Your task to perform on an android device: Go to settings Image 0: 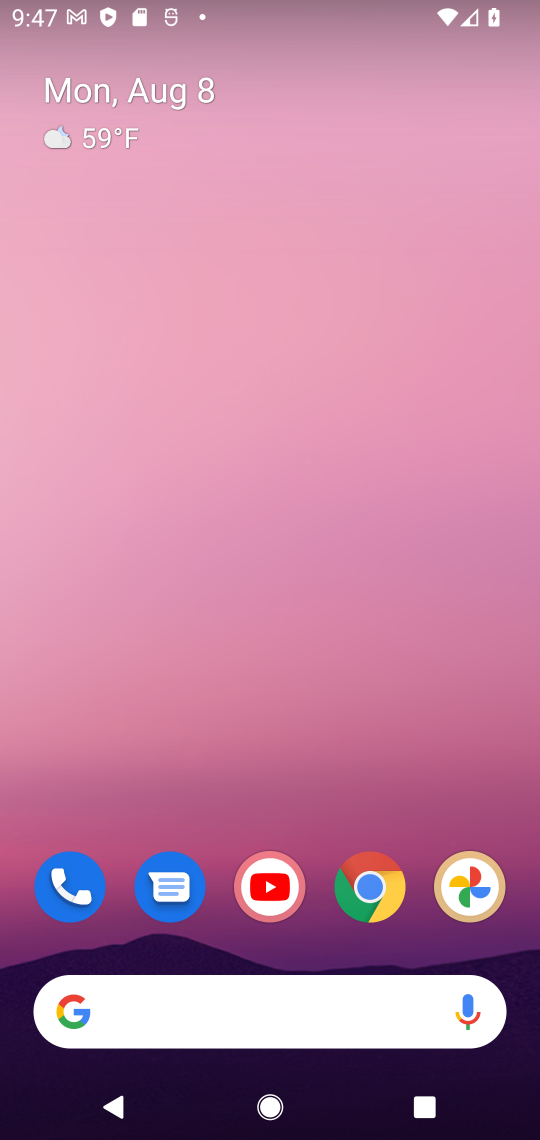
Step 0: drag from (386, 820) to (372, 61)
Your task to perform on an android device: Go to settings Image 1: 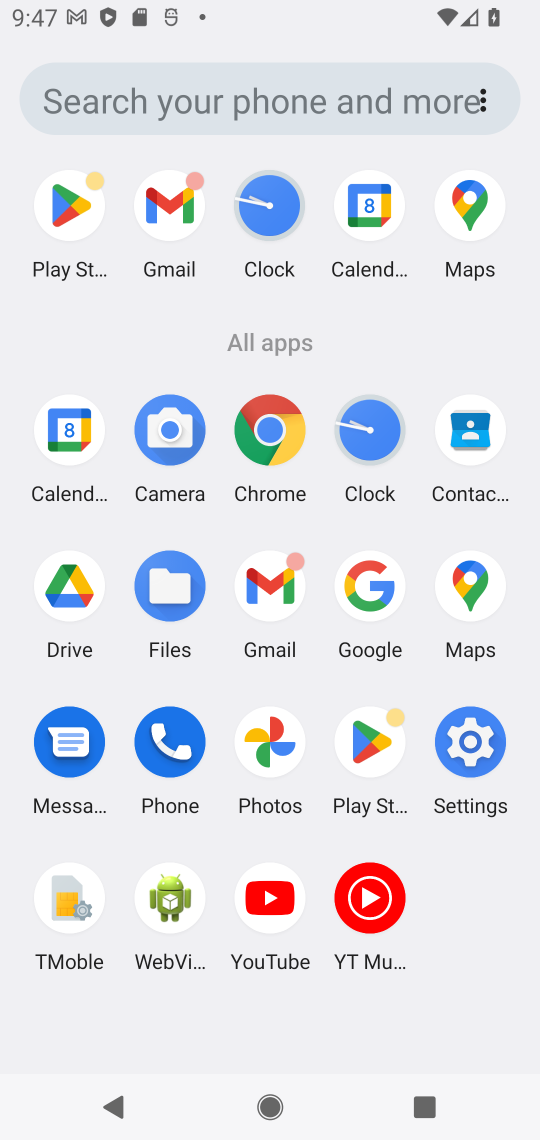
Step 1: click (484, 727)
Your task to perform on an android device: Go to settings Image 2: 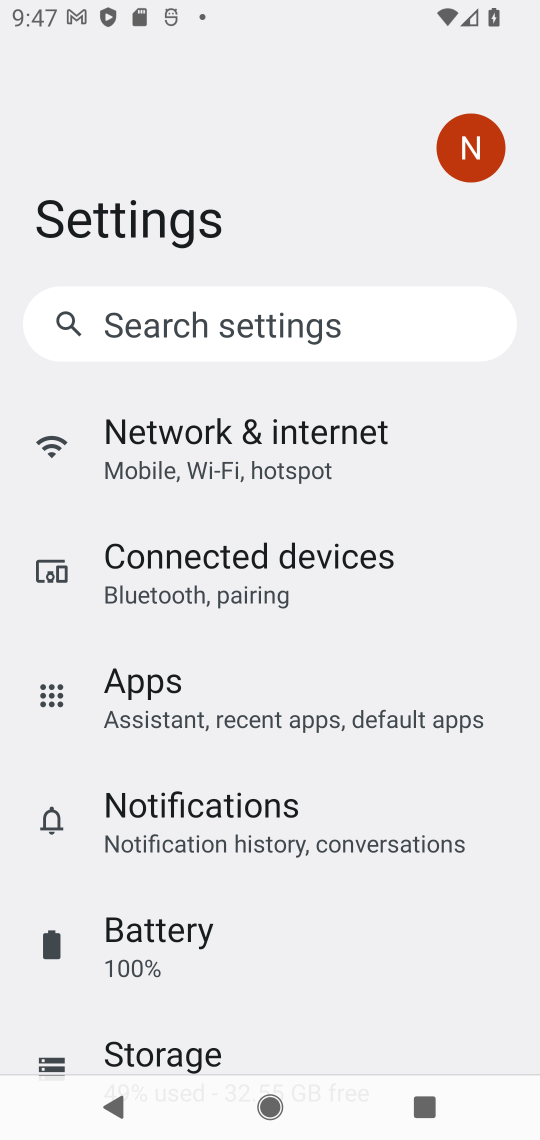
Step 2: task complete